Your task to perform on an android device: Open the stopwatch Image 0: 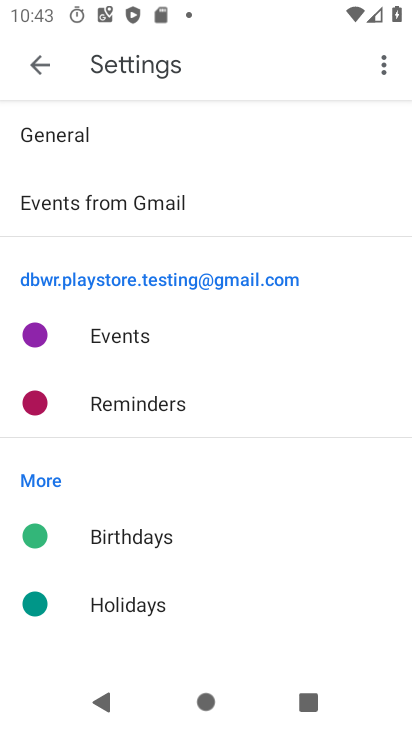
Step 0: press home button
Your task to perform on an android device: Open the stopwatch Image 1: 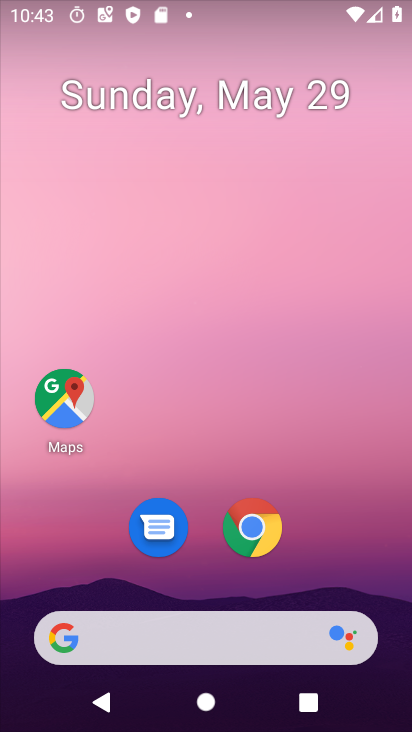
Step 1: drag from (362, 440) to (261, 86)
Your task to perform on an android device: Open the stopwatch Image 2: 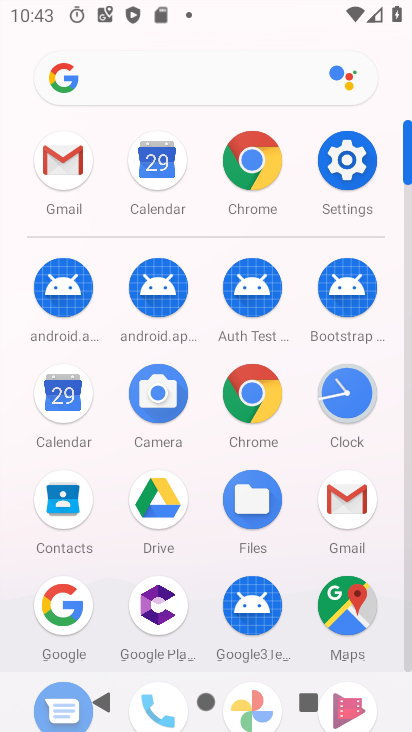
Step 2: click (349, 400)
Your task to perform on an android device: Open the stopwatch Image 3: 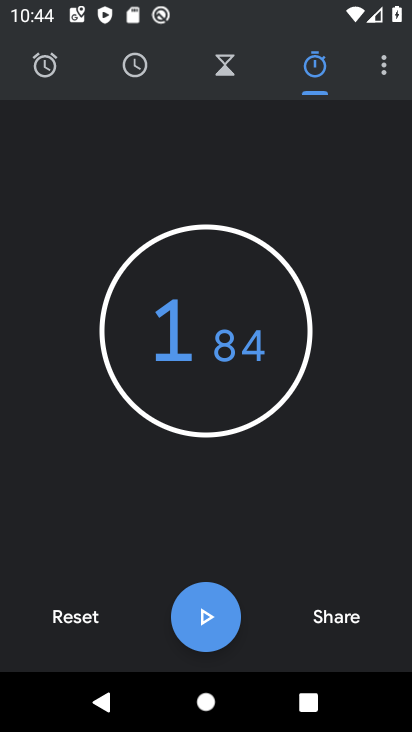
Step 3: task complete